Your task to perform on an android device: delete the emails in spam in the gmail app Image 0: 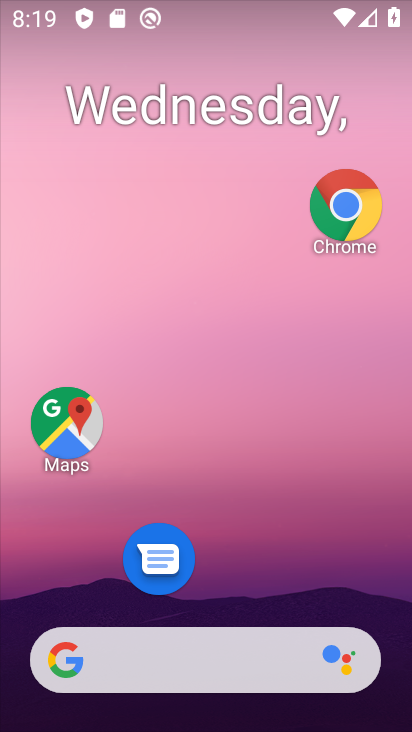
Step 0: drag from (234, 502) to (271, 106)
Your task to perform on an android device: delete the emails in spam in the gmail app Image 1: 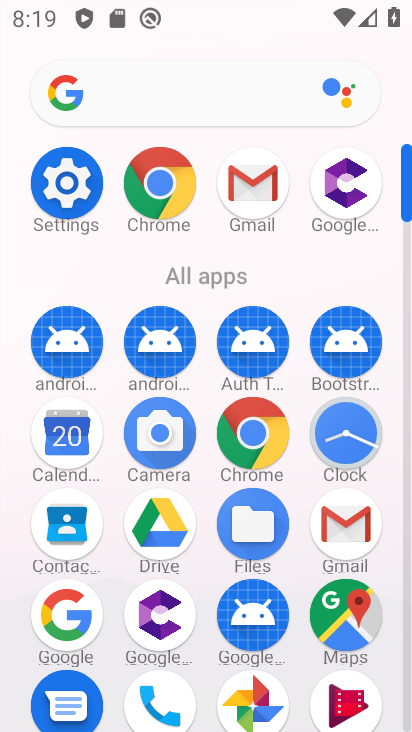
Step 1: click (340, 523)
Your task to perform on an android device: delete the emails in spam in the gmail app Image 2: 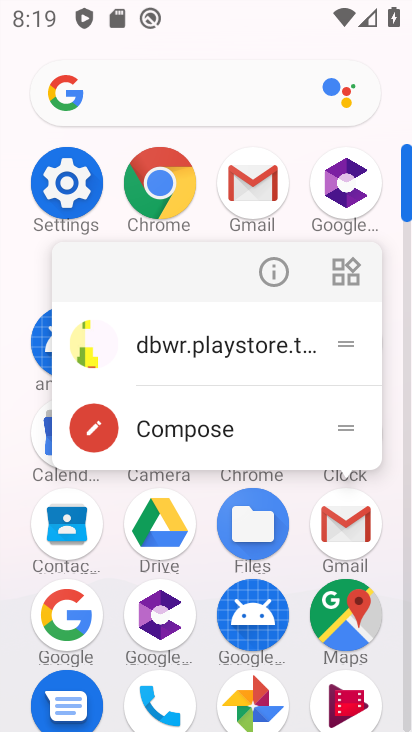
Step 2: click (270, 275)
Your task to perform on an android device: delete the emails in spam in the gmail app Image 3: 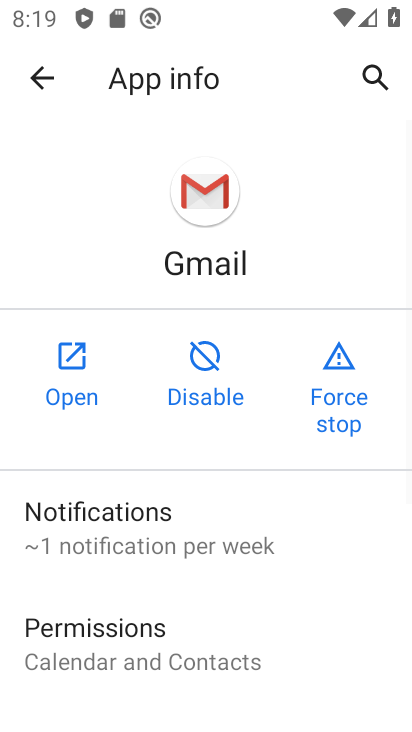
Step 3: click (74, 360)
Your task to perform on an android device: delete the emails in spam in the gmail app Image 4: 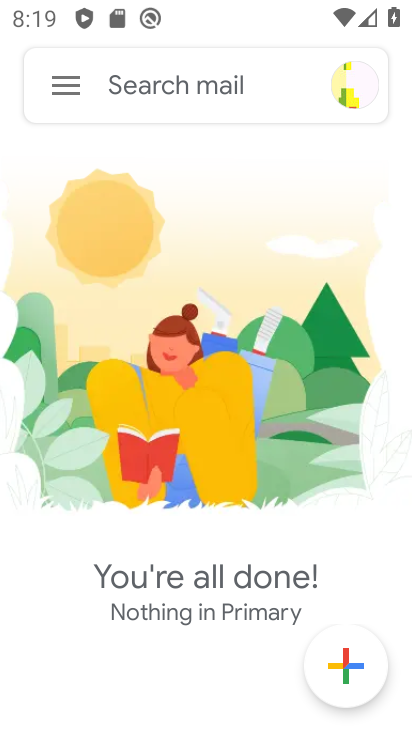
Step 4: click (67, 79)
Your task to perform on an android device: delete the emails in spam in the gmail app Image 5: 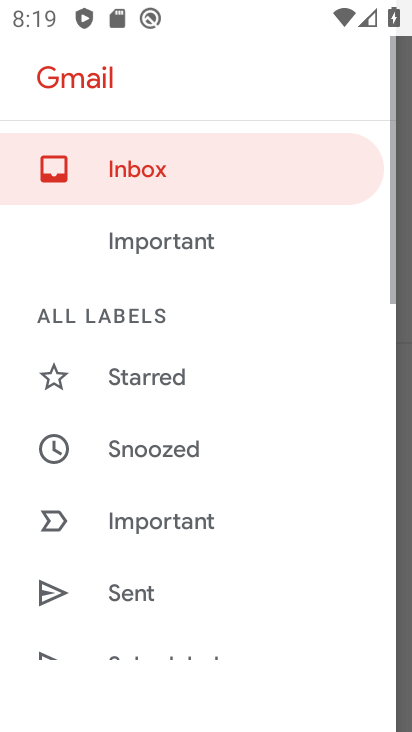
Step 5: drag from (182, 505) to (254, 205)
Your task to perform on an android device: delete the emails in spam in the gmail app Image 6: 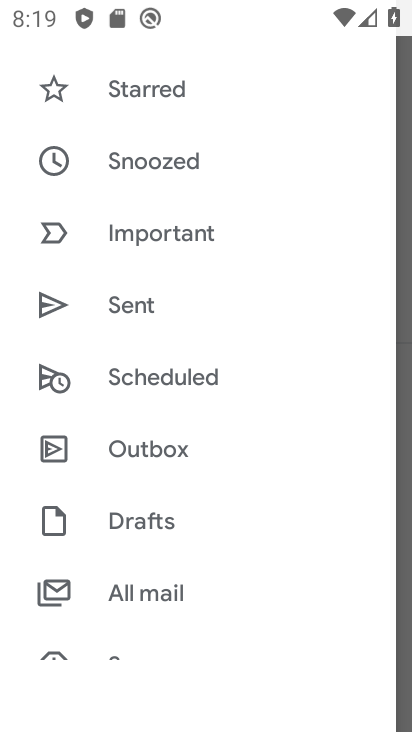
Step 6: drag from (176, 526) to (320, 64)
Your task to perform on an android device: delete the emails in spam in the gmail app Image 7: 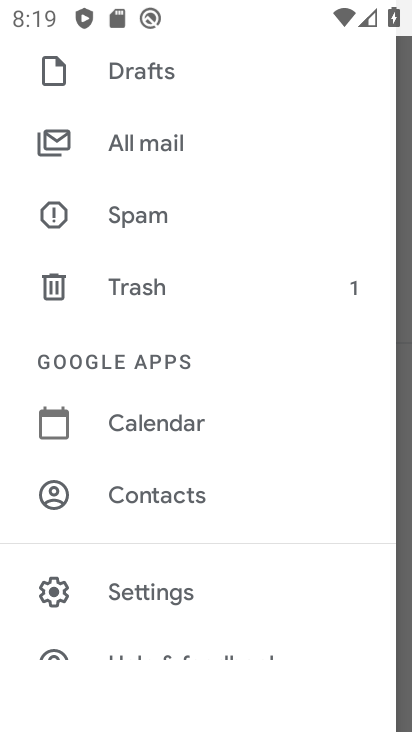
Step 7: click (166, 216)
Your task to perform on an android device: delete the emails in spam in the gmail app Image 8: 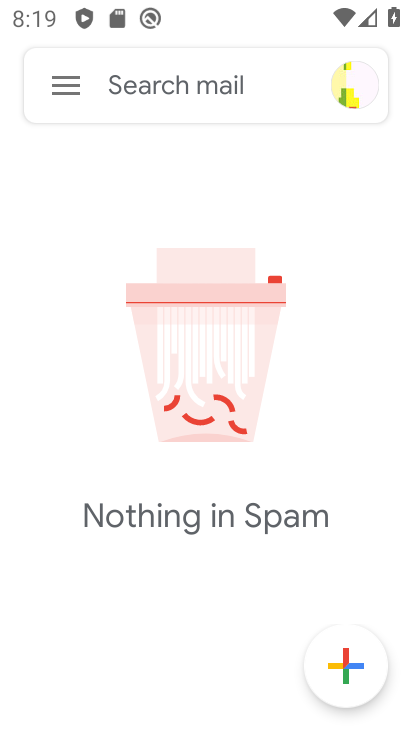
Step 8: task complete